Your task to perform on an android device: set the timer Image 0: 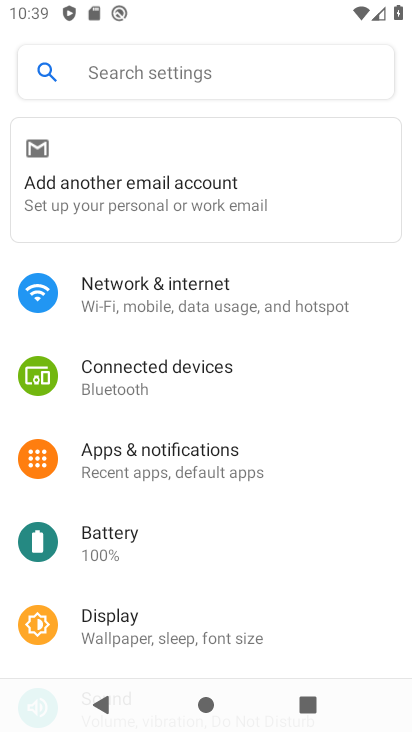
Step 0: press home button
Your task to perform on an android device: set the timer Image 1: 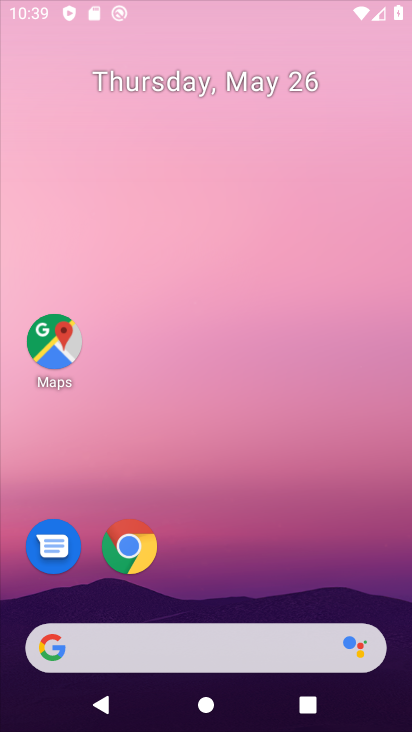
Step 1: drag from (170, 576) to (203, 116)
Your task to perform on an android device: set the timer Image 2: 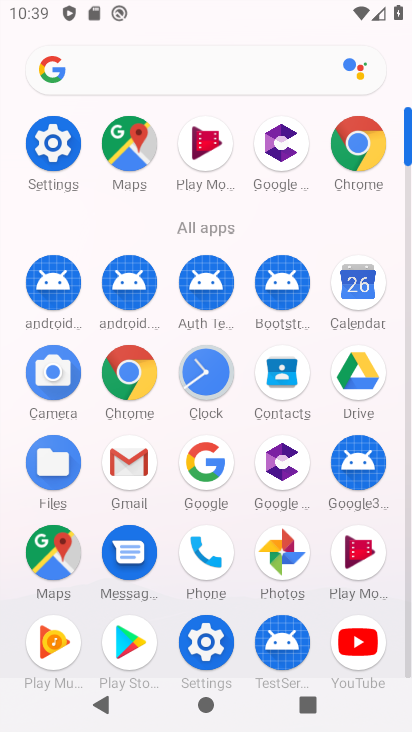
Step 2: click (208, 372)
Your task to perform on an android device: set the timer Image 3: 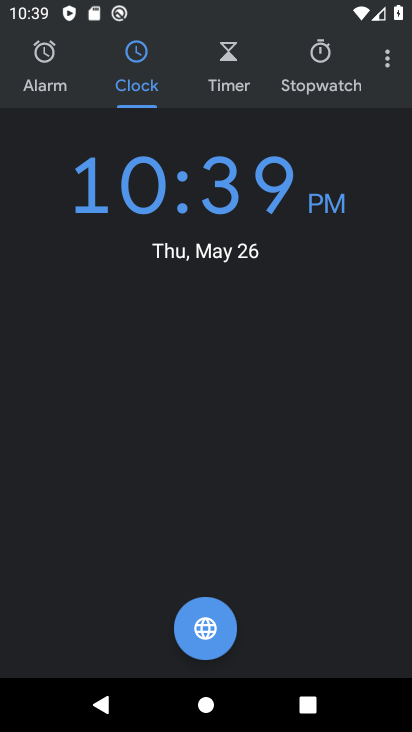
Step 3: click (242, 70)
Your task to perform on an android device: set the timer Image 4: 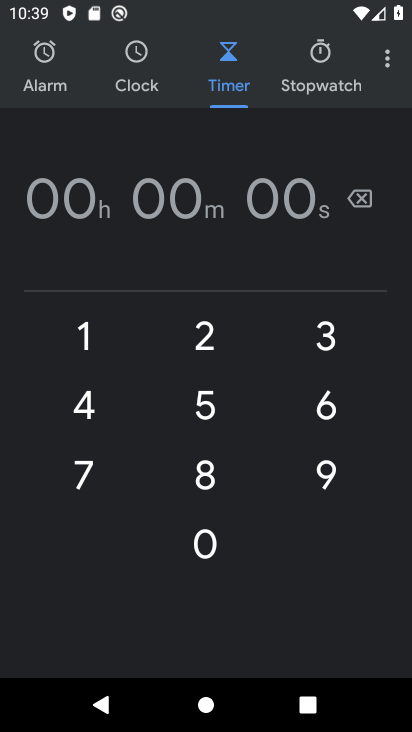
Step 4: click (209, 390)
Your task to perform on an android device: set the timer Image 5: 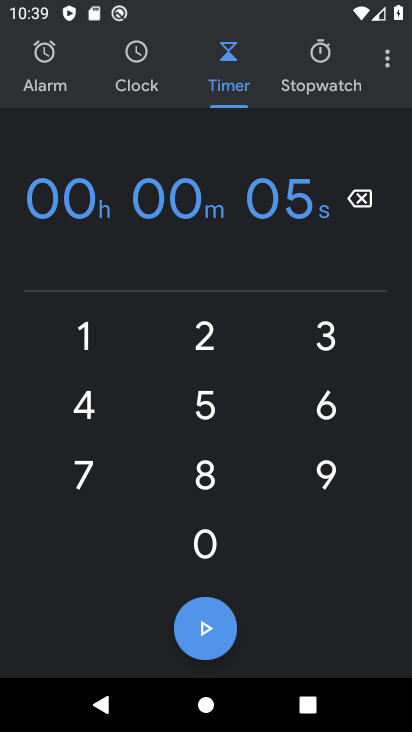
Step 5: click (209, 390)
Your task to perform on an android device: set the timer Image 6: 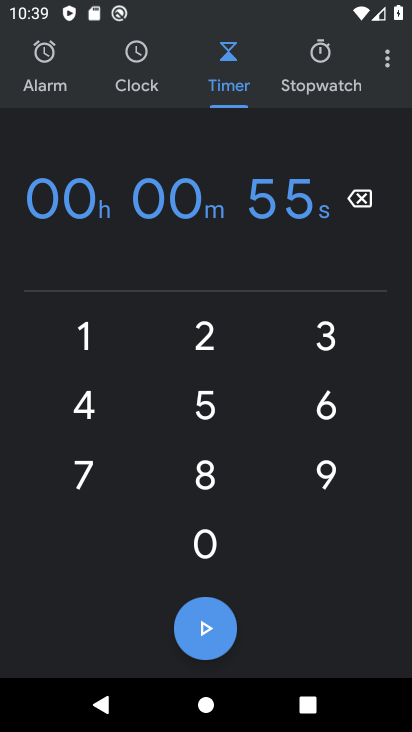
Step 6: task complete